Your task to perform on an android device: Go to Google maps Image 0: 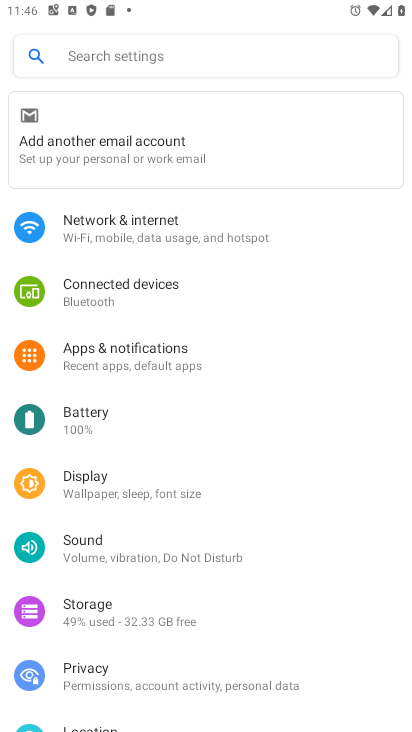
Step 0: press home button
Your task to perform on an android device: Go to Google maps Image 1: 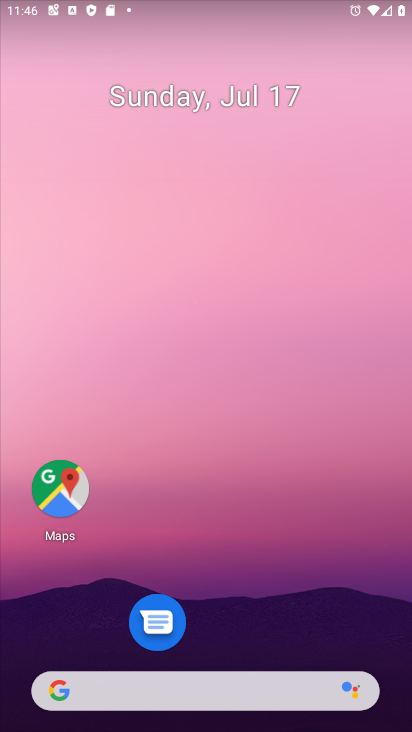
Step 1: click (66, 461)
Your task to perform on an android device: Go to Google maps Image 2: 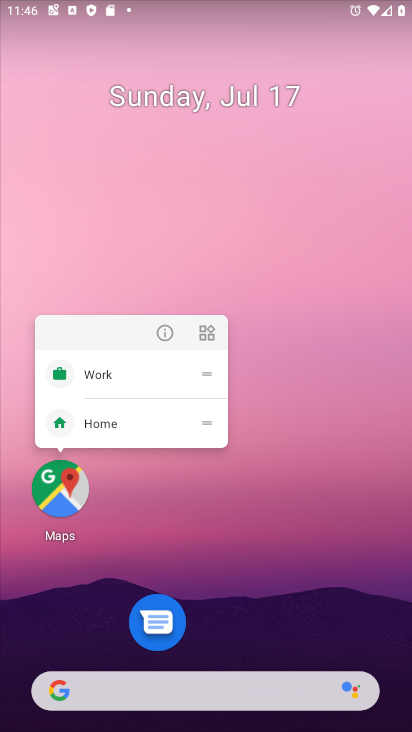
Step 2: click (66, 461)
Your task to perform on an android device: Go to Google maps Image 3: 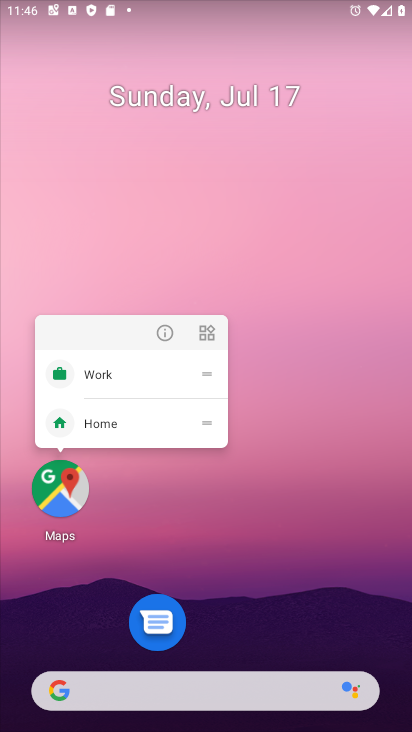
Step 3: click (66, 461)
Your task to perform on an android device: Go to Google maps Image 4: 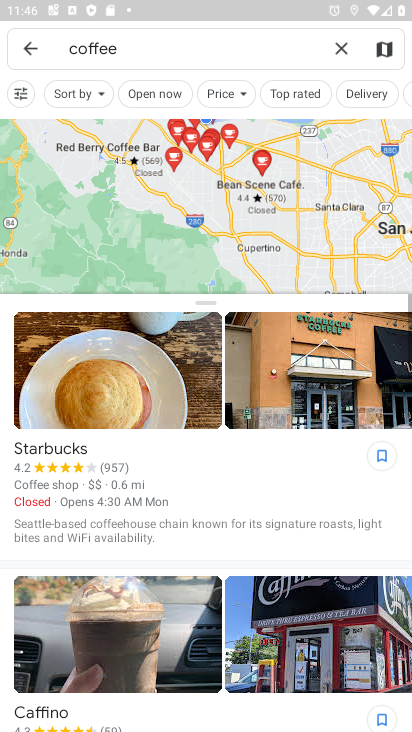
Step 4: task complete